Your task to perform on an android device: open device folders in google photos Image 0: 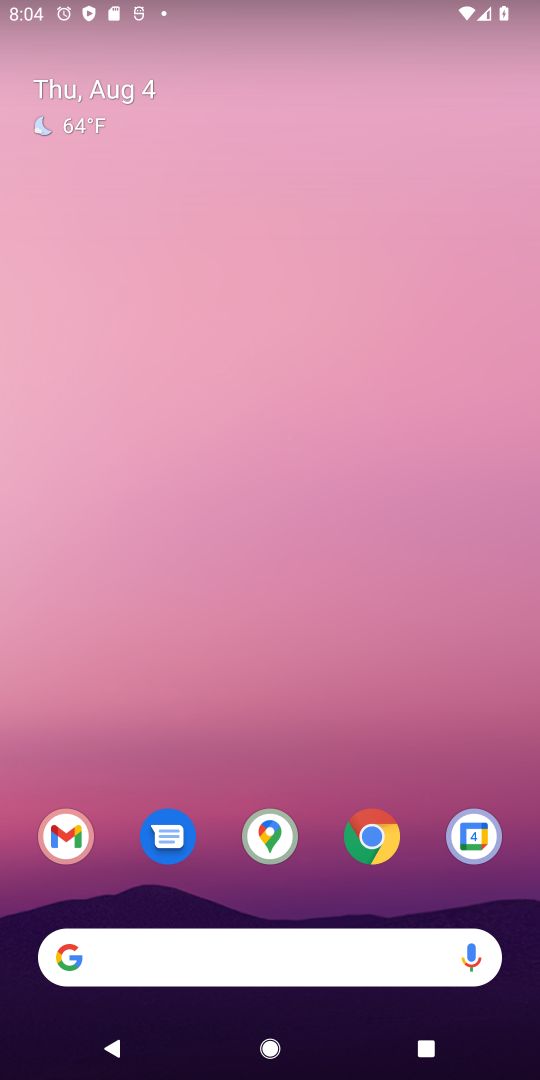
Step 0: drag from (197, 892) to (300, 145)
Your task to perform on an android device: open device folders in google photos Image 1: 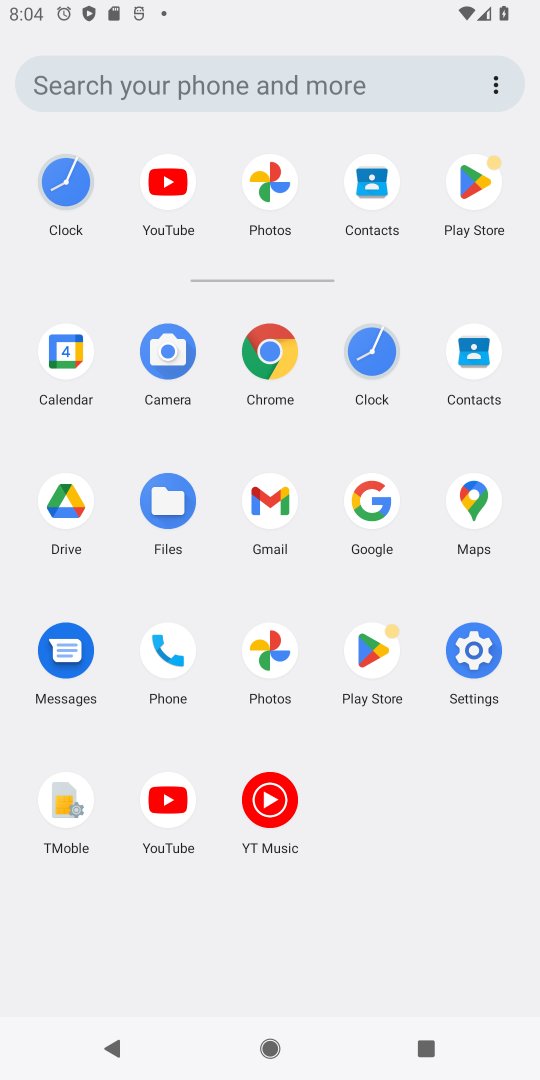
Step 1: click (251, 662)
Your task to perform on an android device: open device folders in google photos Image 2: 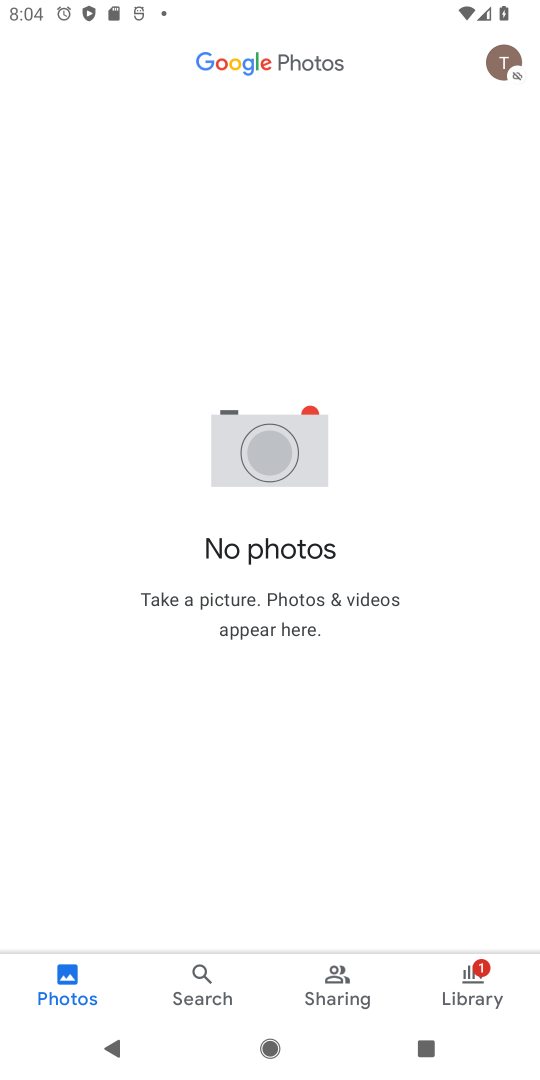
Step 2: task complete